Your task to perform on an android device: delete browsing data in the chrome app Image 0: 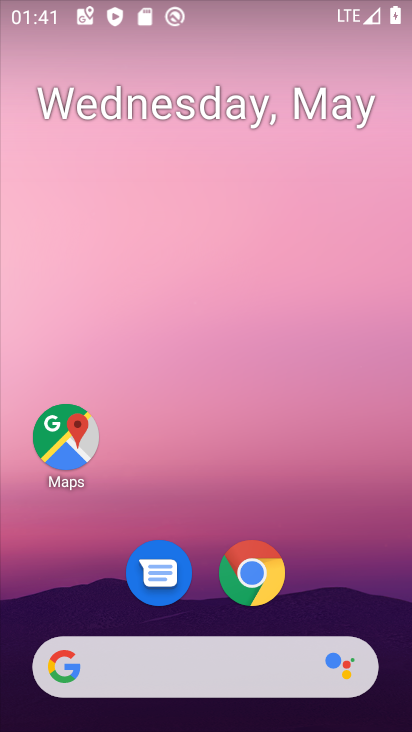
Step 0: click (258, 560)
Your task to perform on an android device: delete browsing data in the chrome app Image 1: 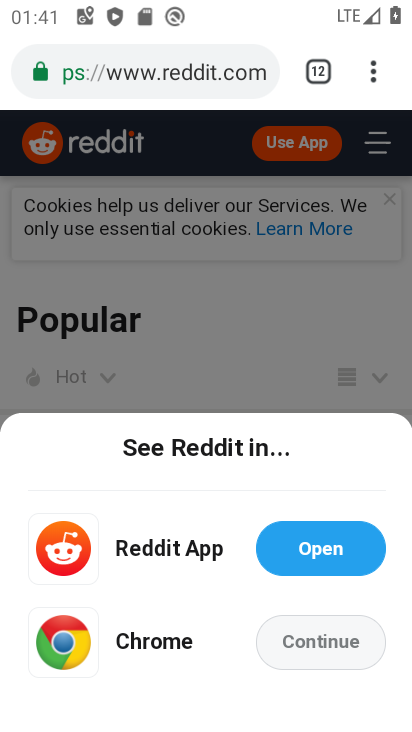
Step 1: click (389, 62)
Your task to perform on an android device: delete browsing data in the chrome app Image 2: 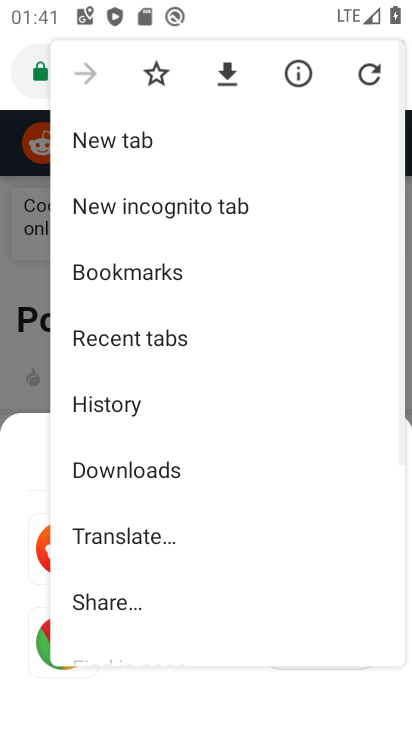
Step 2: drag from (242, 528) to (234, 181)
Your task to perform on an android device: delete browsing data in the chrome app Image 3: 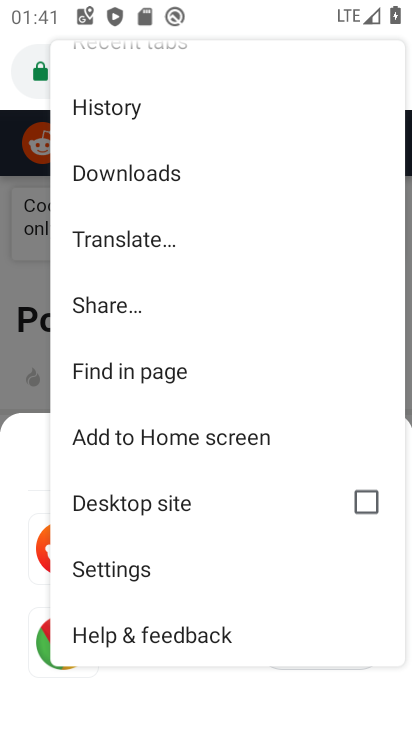
Step 3: click (144, 99)
Your task to perform on an android device: delete browsing data in the chrome app Image 4: 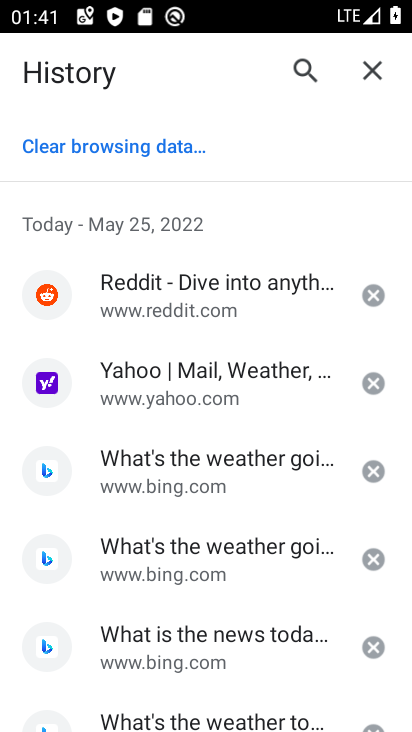
Step 4: click (80, 146)
Your task to perform on an android device: delete browsing data in the chrome app Image 5: 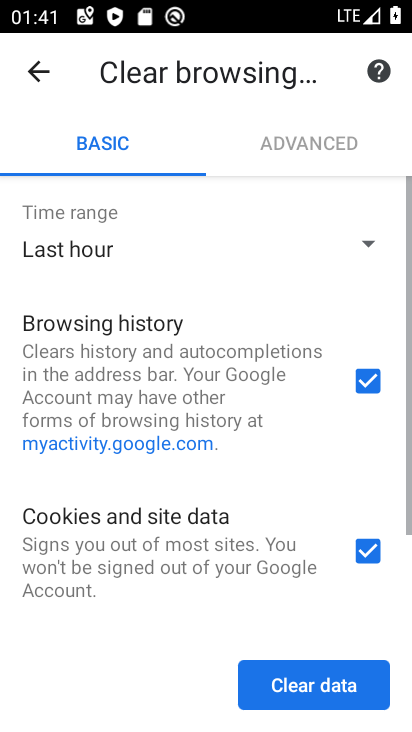
Step 5: click (329, 677)
Your task to perform on an android device: delete browsing data in the chrome app Image 6: 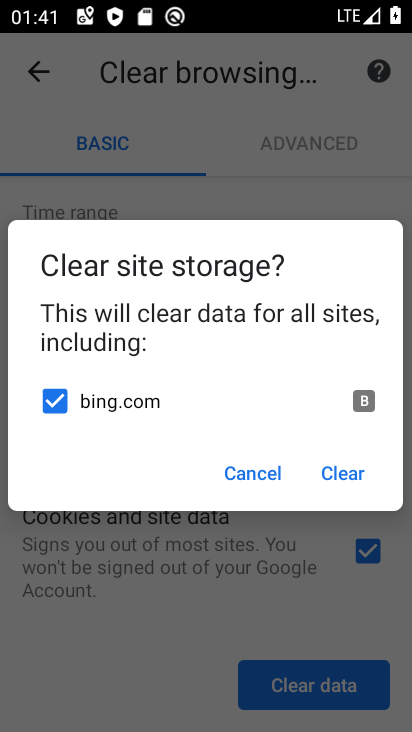
Step 6: click (343, 464)
Your task to perform on an android device: delete browsing data in the chrome app Image 7: 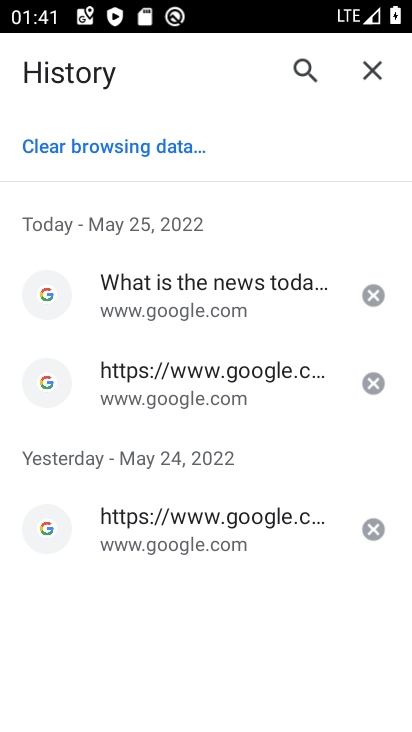
Step 7: task complete